Your task to perform on an android device: Go to Reddit.com Image 0: 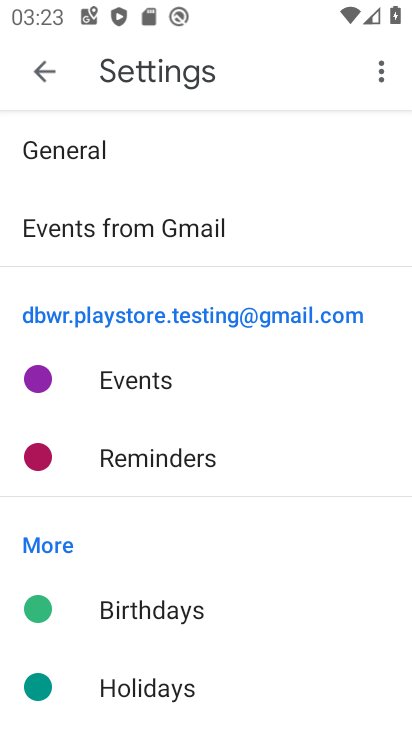
Step 0: press back button
Your task to perform on an android device: Go to Reddit.com Image 1: 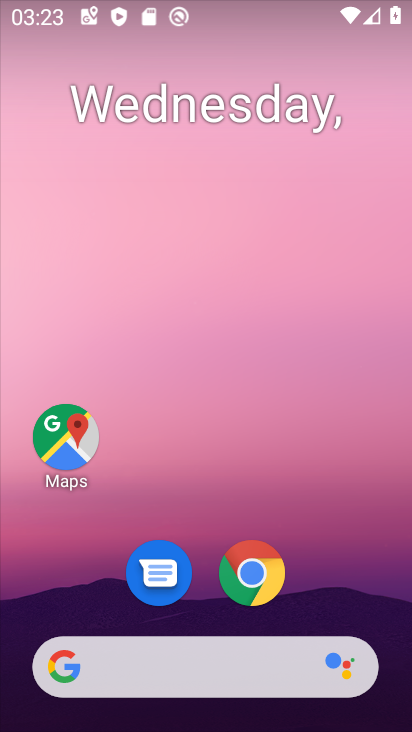
Step 1: click (253, 573)
Your task to perform on an android device: Go to Reddit.com Image 2: 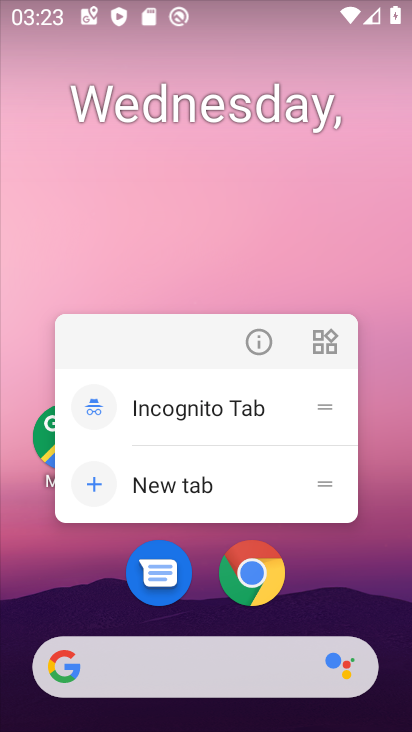
Step 2: click (253, 573)
Your task to perform on an android device: Go to Reddit.com Image 3: 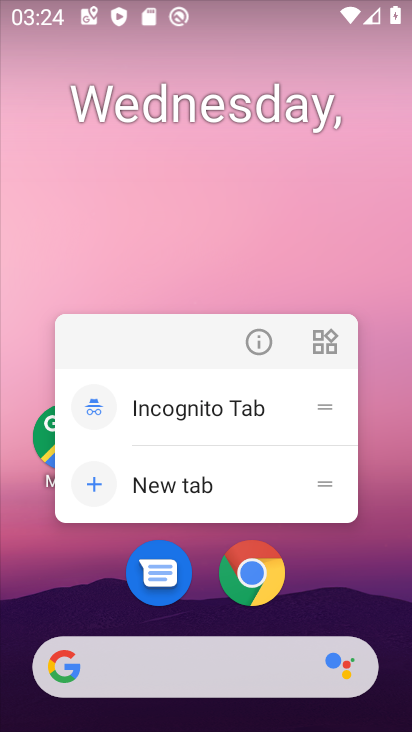
Step 3: click (257, 577)
Your task to perform on an android device: Go to Reddit.com Image 4: 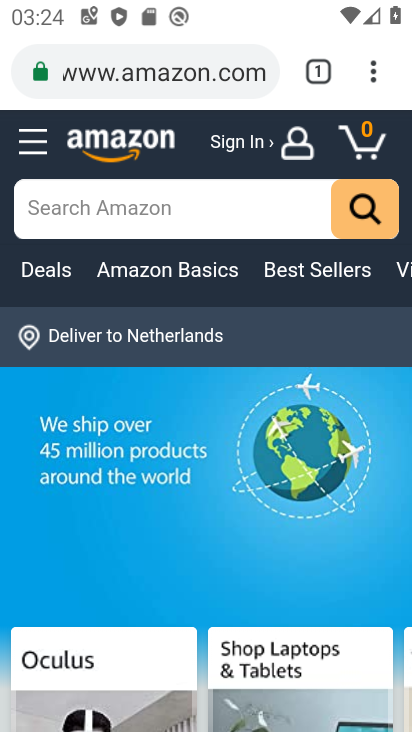
Step 4: click (237, 68)
Your task to perform on an android device: Go to Reddit.com Image 5: 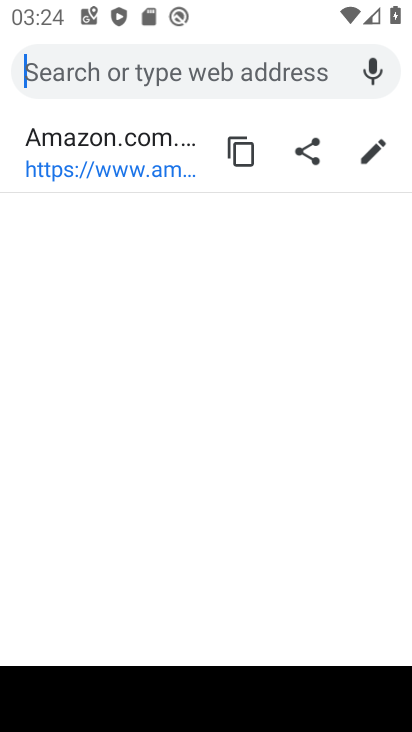
Step 5: type "Reddit.com"
Your task to perform on an android device: Go to Reddit.com Image 6: 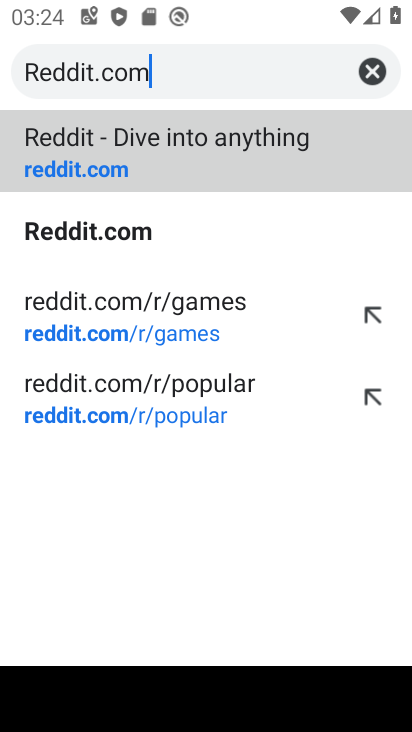
Step 6: type ""
Your task to perform on an android device: Go to Reddit.com Image 7: 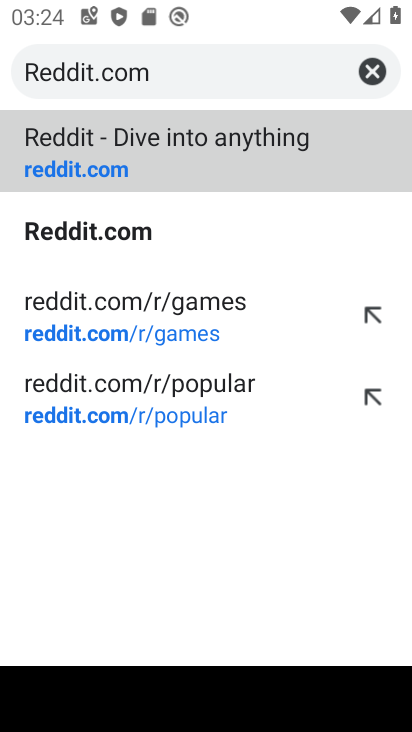
Step 7: click (68, 226)
Your task to perform on an android device: Go to Reddit.com Image 8: 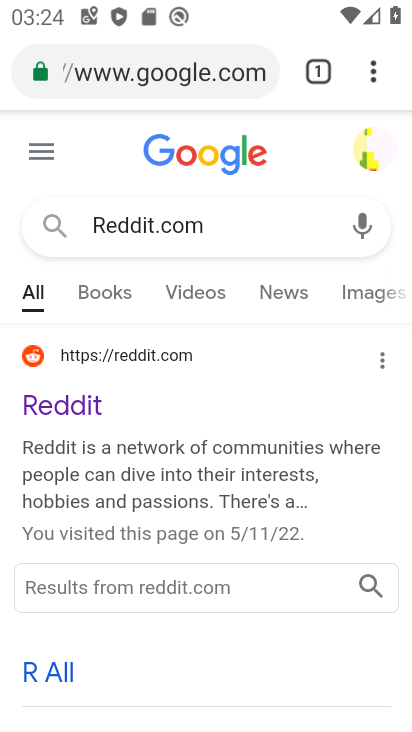
Step 8: click (50, 405)
Your task to perform on an android device: Go to Reddit.com Image 9: 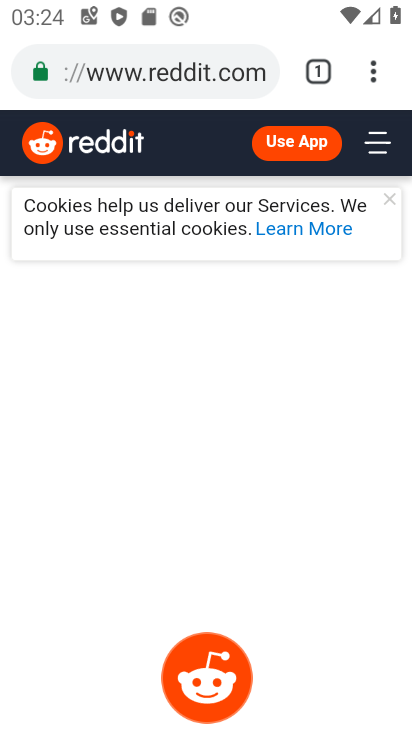
Step 9: task complete